Your task to perform on an android device: toggle location history Image 0: 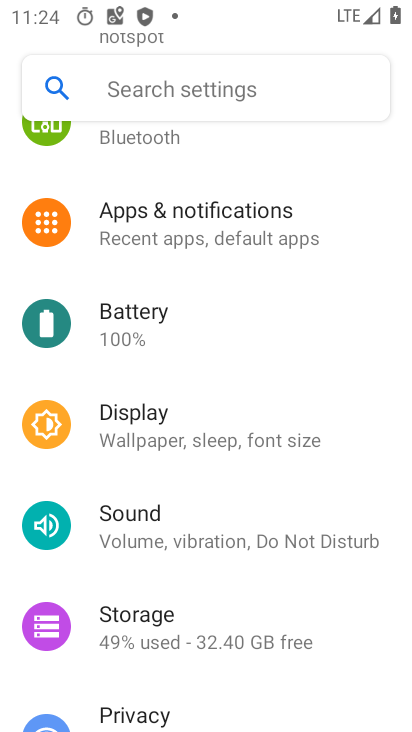
Step 0: press home button
Your task to perform on an android device: toggle location history Image 1: 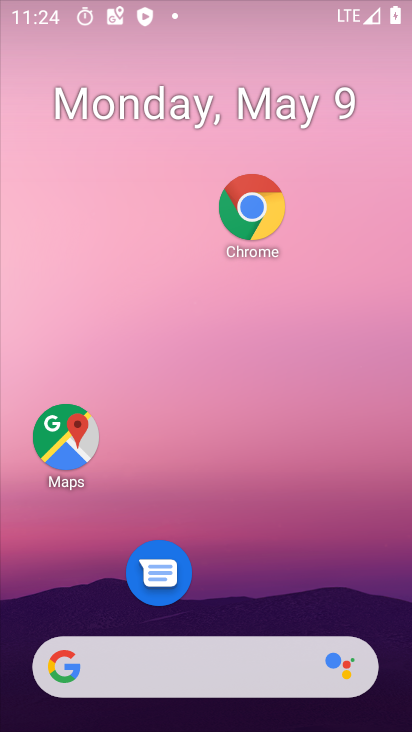
Step 1: drag from (186, 612) to (195, 86)
Your task to perform on an android device: toggle location history Image 2: 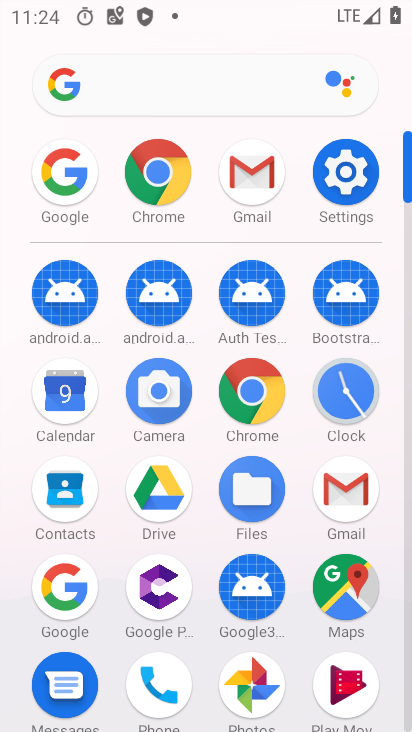
Step 2: click (341, 178)
Your task to perform on an android device: toggle location history Image 3: 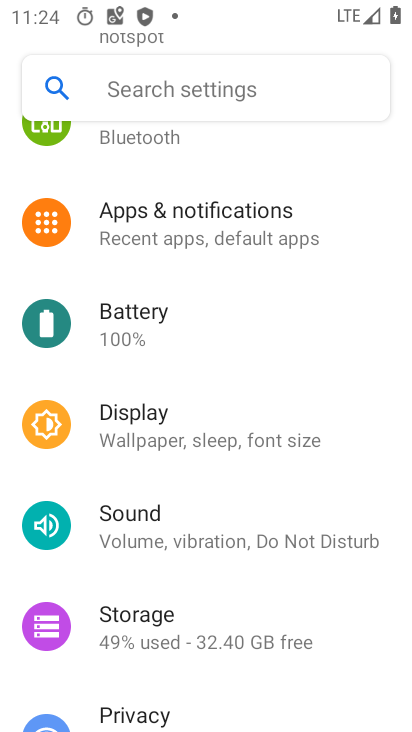
Step 3: drag from (257, 481) to (283, 218)
Your task to perform on an android device: toggle location history Image 4: 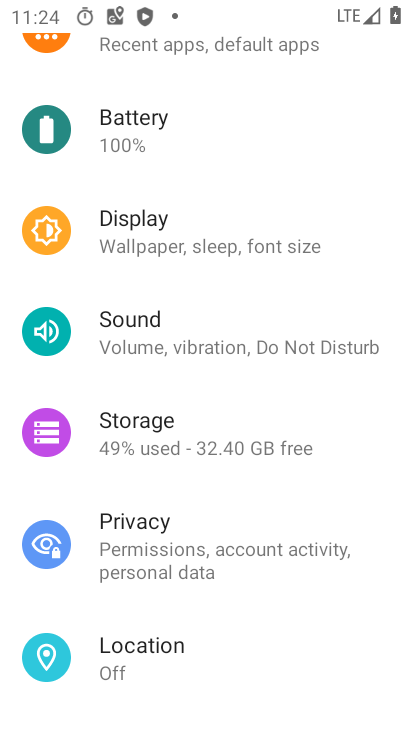
Step 4: click (173, 652)
Your task to perform on an android device: toggle location history Image 5: 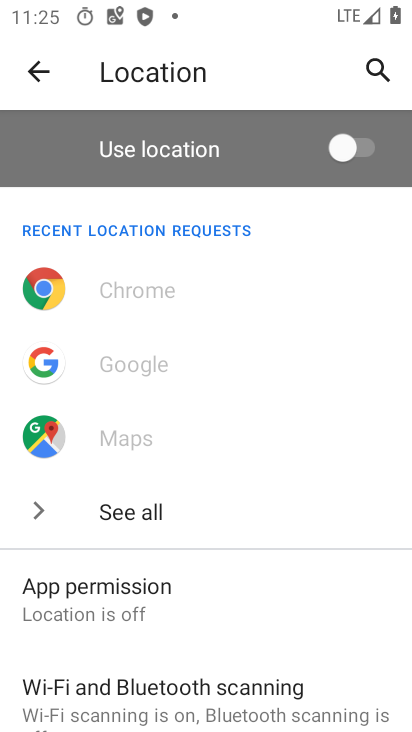
Step 5: drag from (173, 652) to (133, 270)
Your task to perform on an android device: toggle location history Image 6: 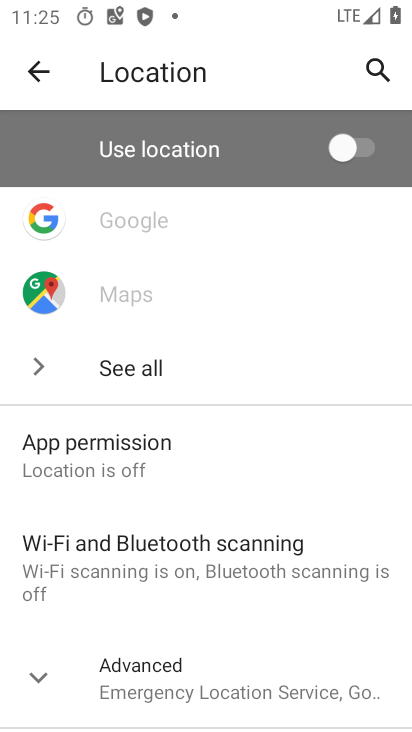
Step 6: click (258, 673)
Your task to perform on an android device: toggle location history Image 7: 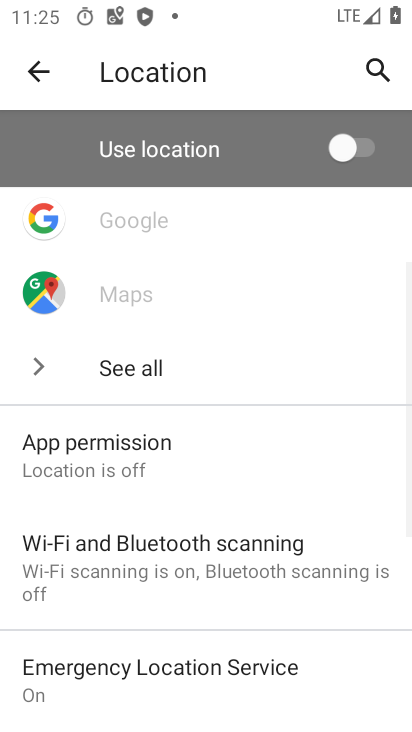
Step 7: drag from (258, 673) to (248, 442)
Your task to perform on an android device: toggle location history Image 8: 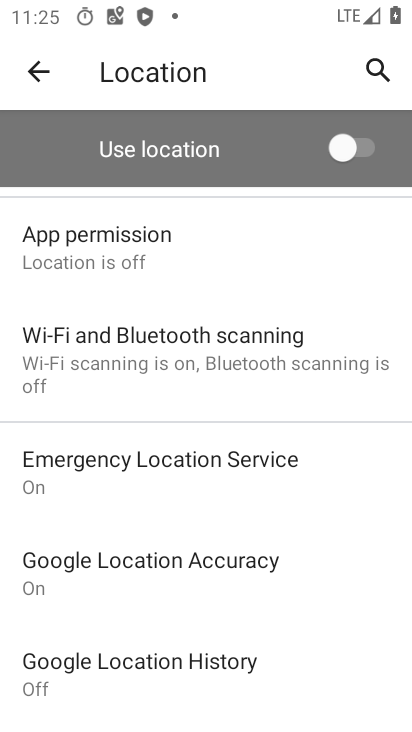
Step 8: click (246, 668)
Your task to perform on an android device: toggle location history Image 9: 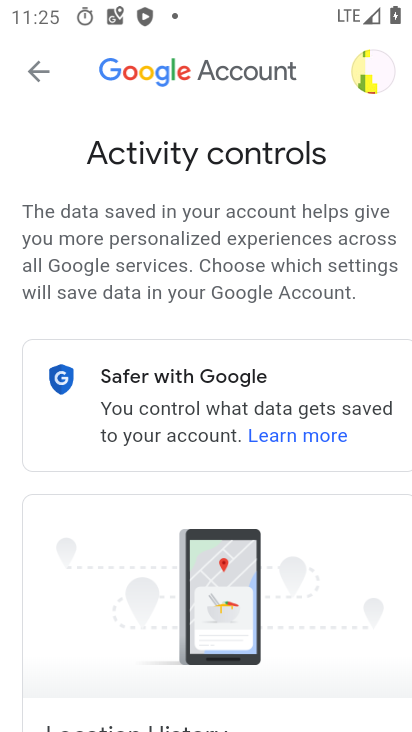
Step 9: drag from (319, 475) to (204, 308)
Your task to perform on an android device: toggle location history Image 10: 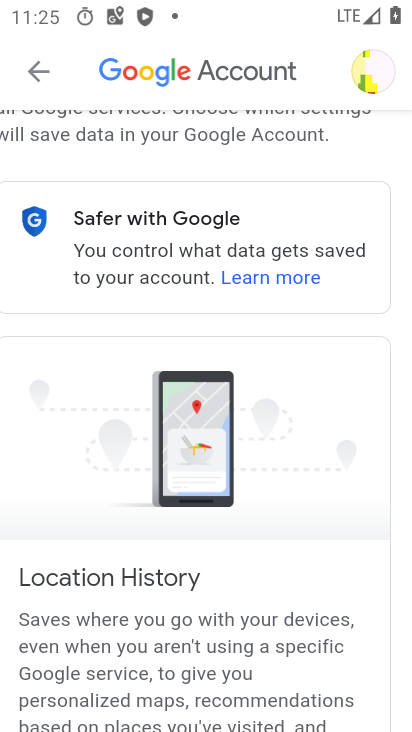
Step 10: drag from (273, 442) to (214, 270)
Your task to perform on an android device: toggle location history Image 11: 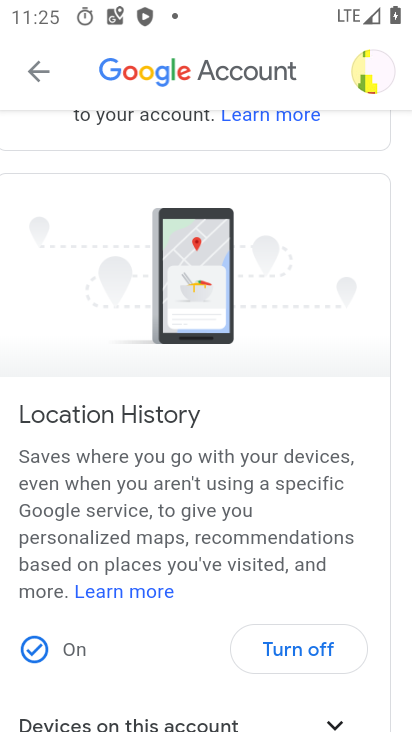
Step 11: drag from (305, 522) to (251, 370)
Your task to perform on an android device: toggle location history Image 12: 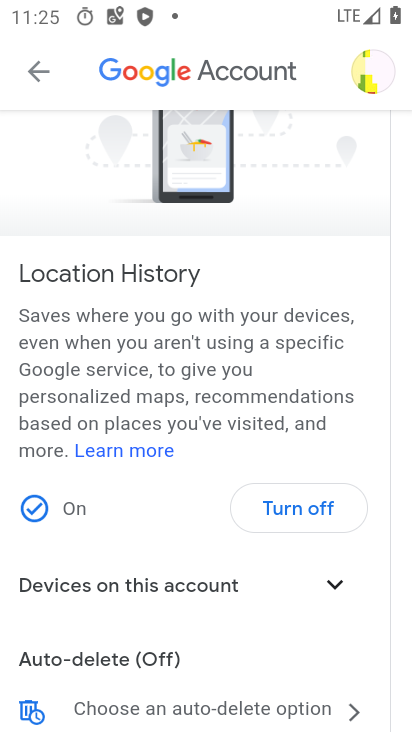
Step 12: click (305, 500)
Your task to perform on an android device: toggle location history Image 13: 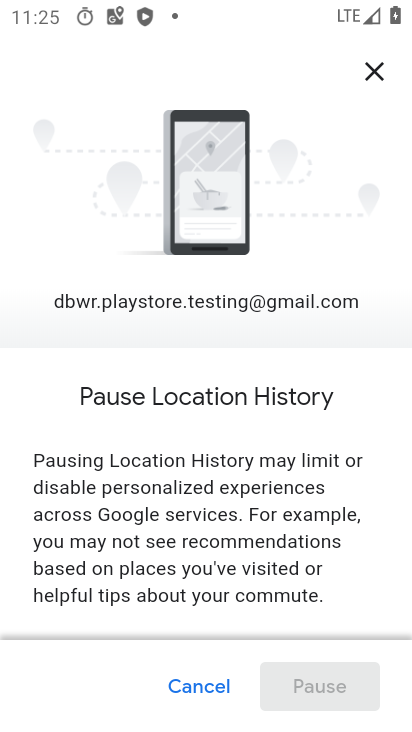
Step 13: drag from (307, 519) to (255, 281)
Your task to perform on an android device: toggle location history Image 14: 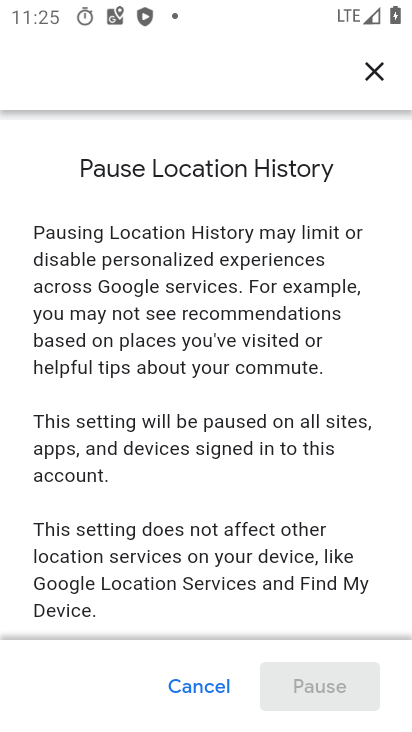
Step 14: drag from (265, 564) to (265, 278)
Your task to perform on an android device: toggle location history Image 15: 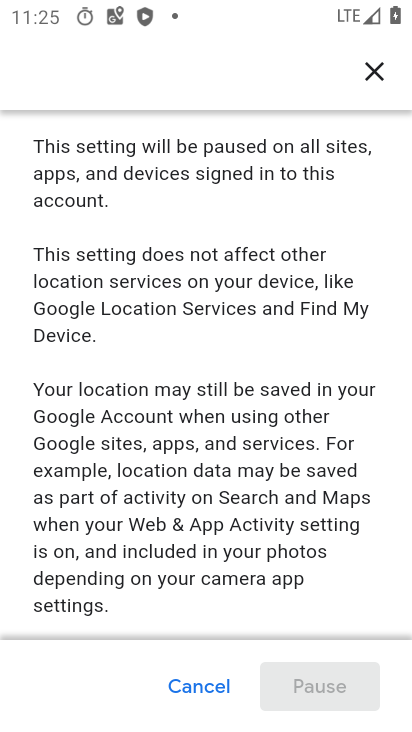
Step 15: drag from (265, 493) to (255, 324)
Your task to perform on an android device: toggle location history Image 16: 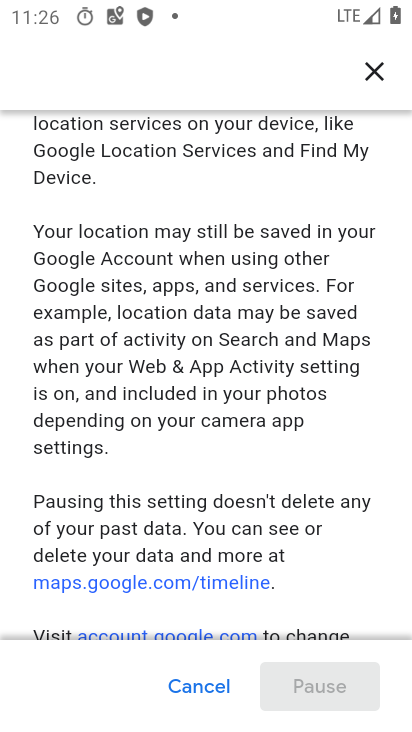
Step 16: drag from (279, 555) to (279, 362)
Your task to perform on an android device: toggle location history Image 17: 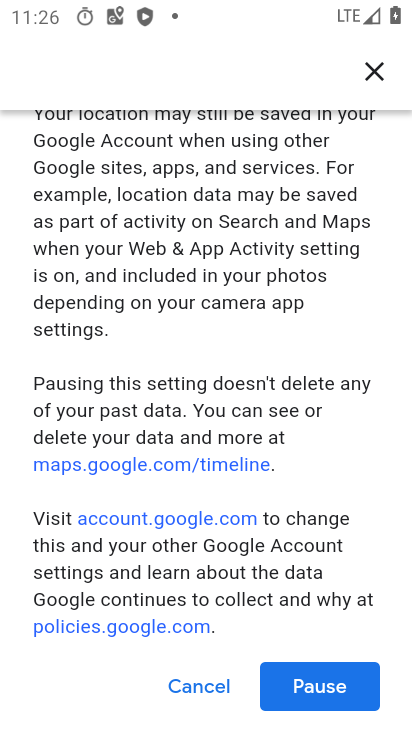
Step 17: click (316, 683)
Your task to perform on an android device: toggle location history Image 18: 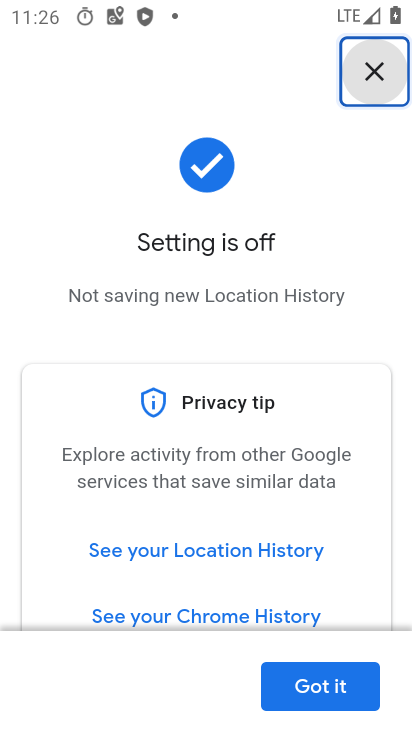
Step 18: click (324, 675)
Your task to perform on an android device: toggle location history Image 19: 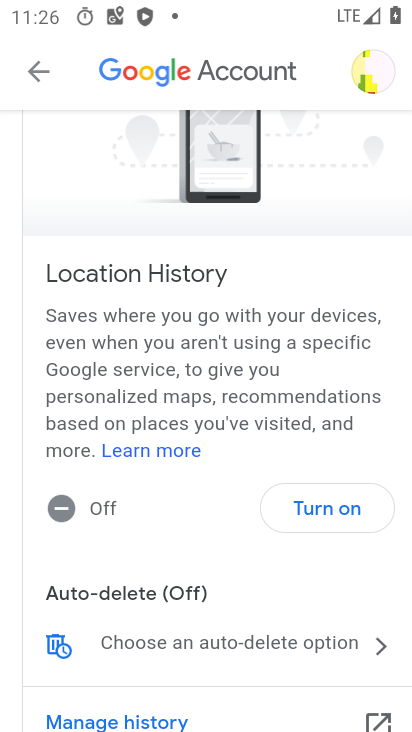
Step 19: task complete